Your task to perform on an android device: change notification settings in the gmail app Image 0: 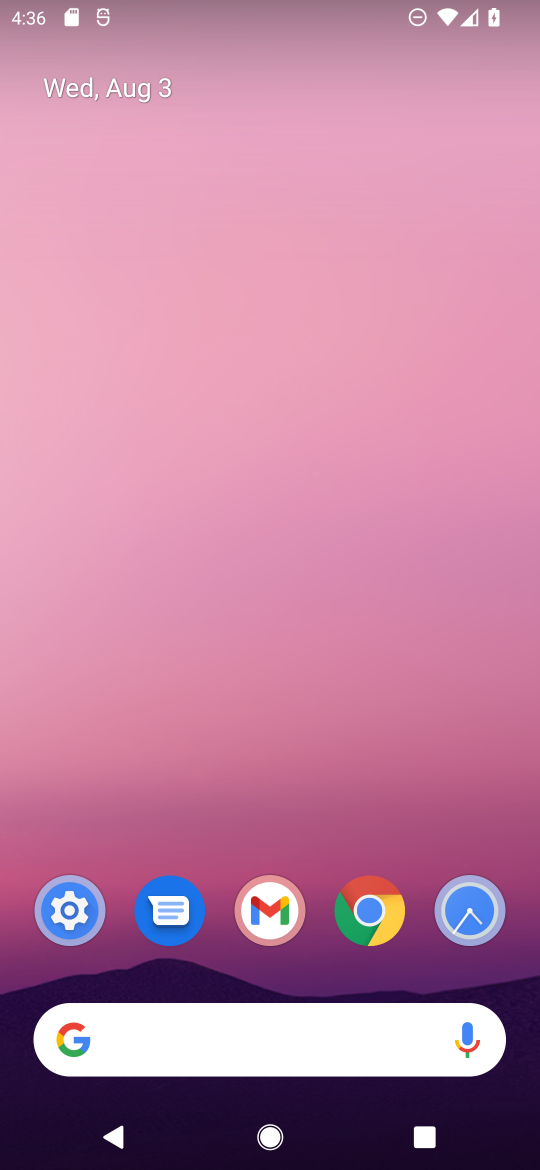
Step 0: click (249, 899)
Your task to perform on an android device: change notification settings in the gmail app Image 1: 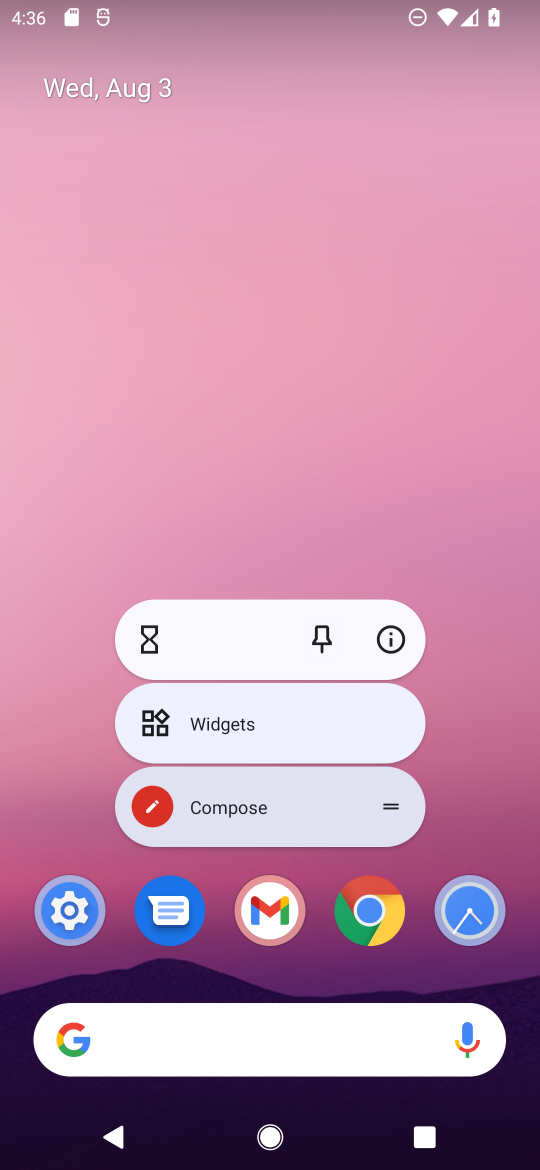
Step 1: click (253, 930)
Your task to perform on an android device: change notification settings in the gmail app Image 2: 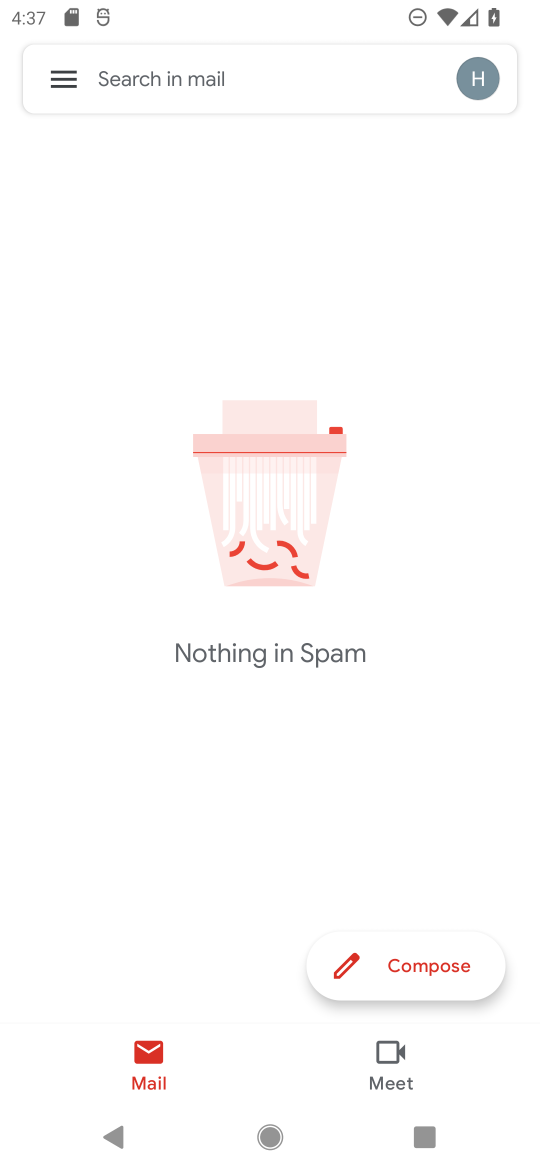
Step 2: click (67, 79)
Your task to perform on an android device: change notification settings in the gmail app Image 3: 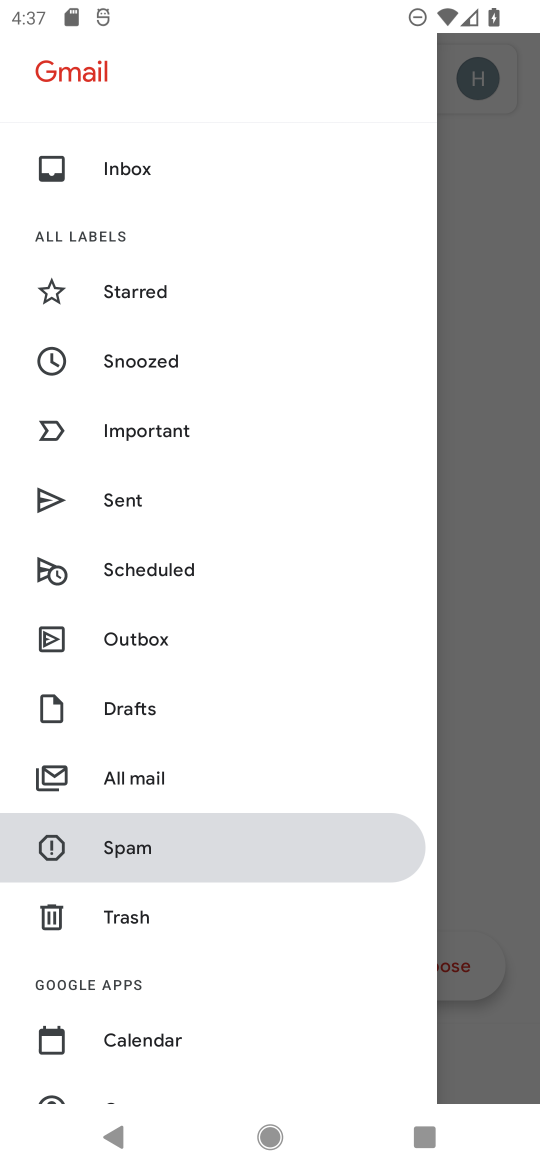
Step 3: drag from (210, 1026) to (239, 653)
Your task to perform on an android device: change notification settings in the gmail app Image 4: 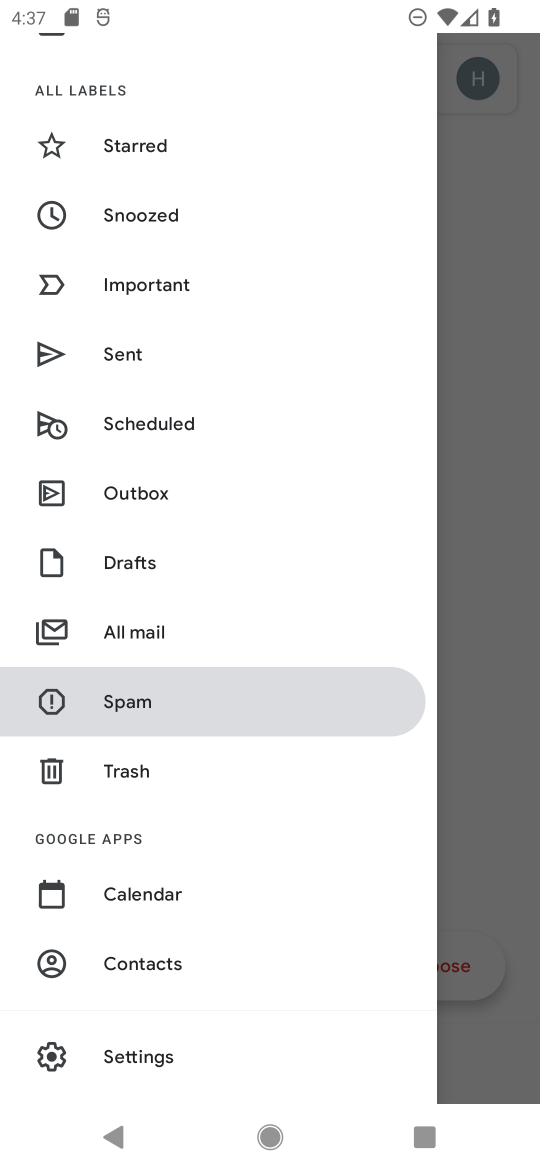
Step 4: click (179, 1054)
Your task to perform on an android device: change notification settings in the gmail app Image 5: 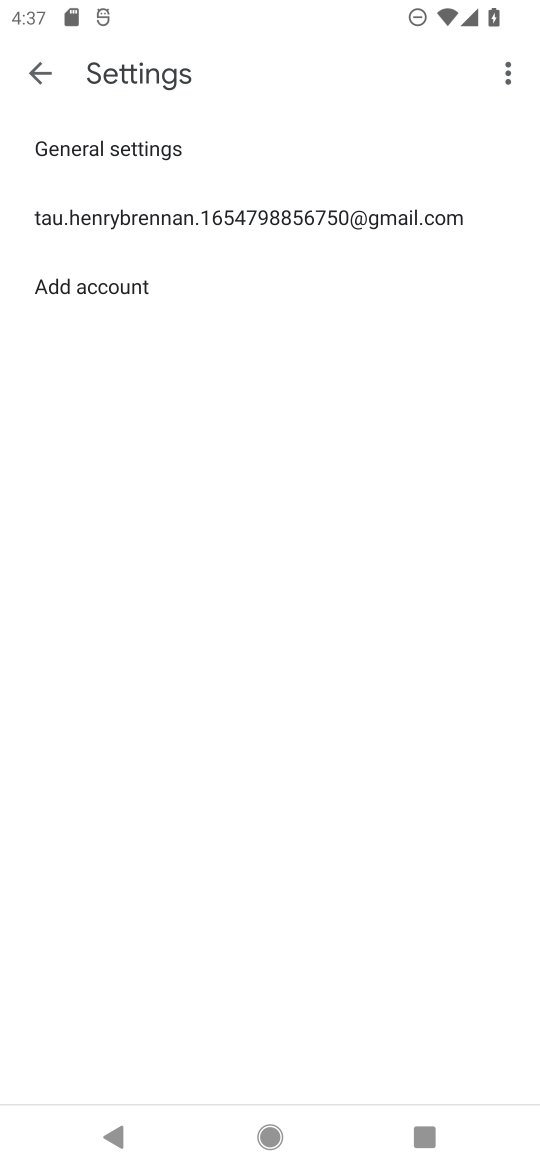
Step 5: click (243, 217)
Your task to perform on an android device: change notification settings in the gmail app Image 6: 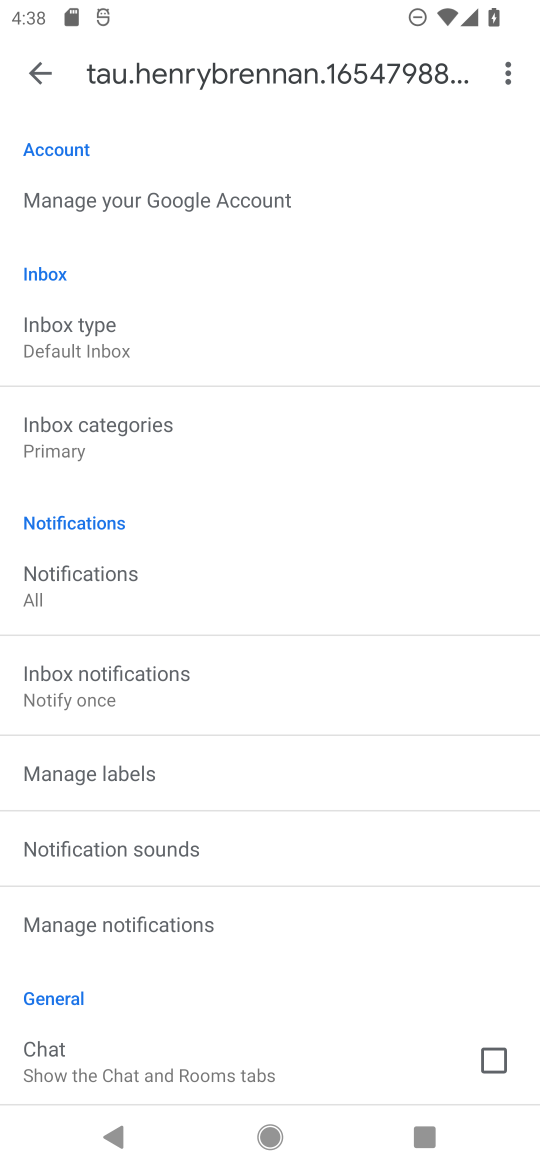
Step 6: click (120, 604)
Your task to perform on an android device: change notification settings in the gmail app Image 7: 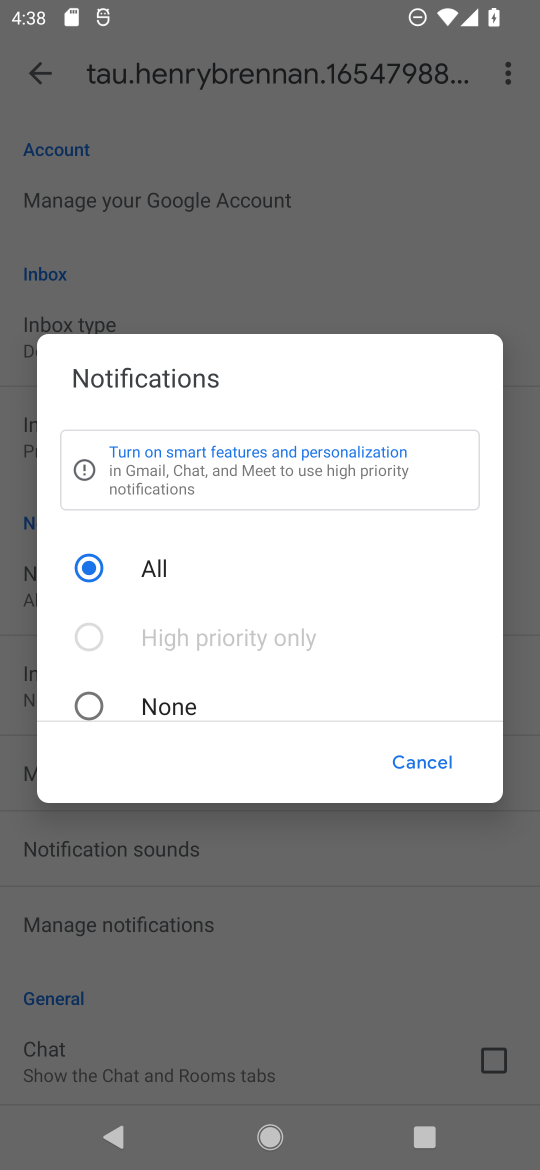
Step 7: task complete